Your task to perform on an android device: Go to eBay Image 0: 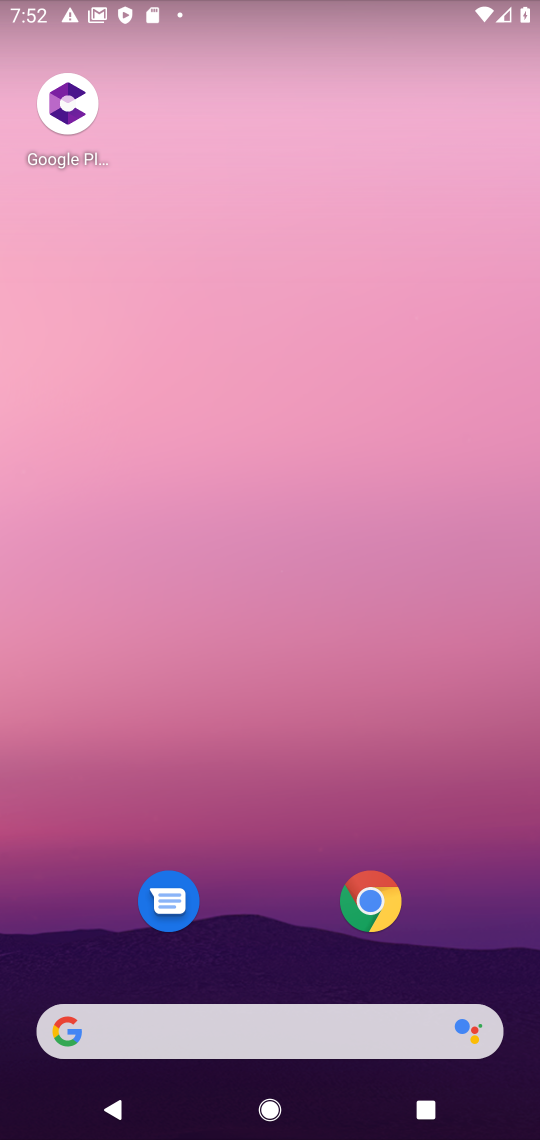
Step 0: click (366, 899)
Your task to perform on an android device: Go to eBay Image 1: 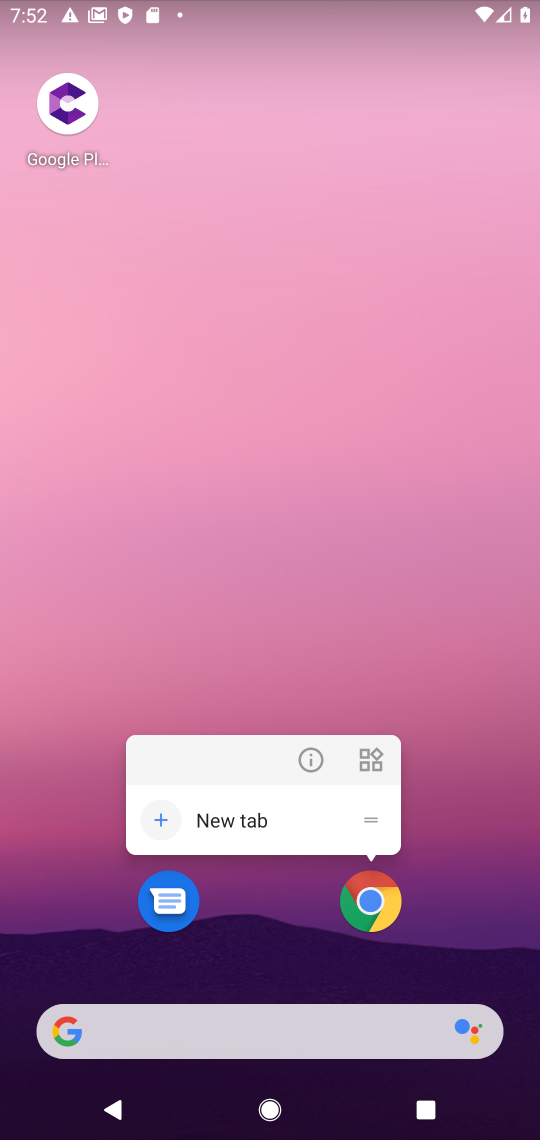
Step 1: click (377, 904)
Your task to perform on an android device: Go to eBay Image 2: 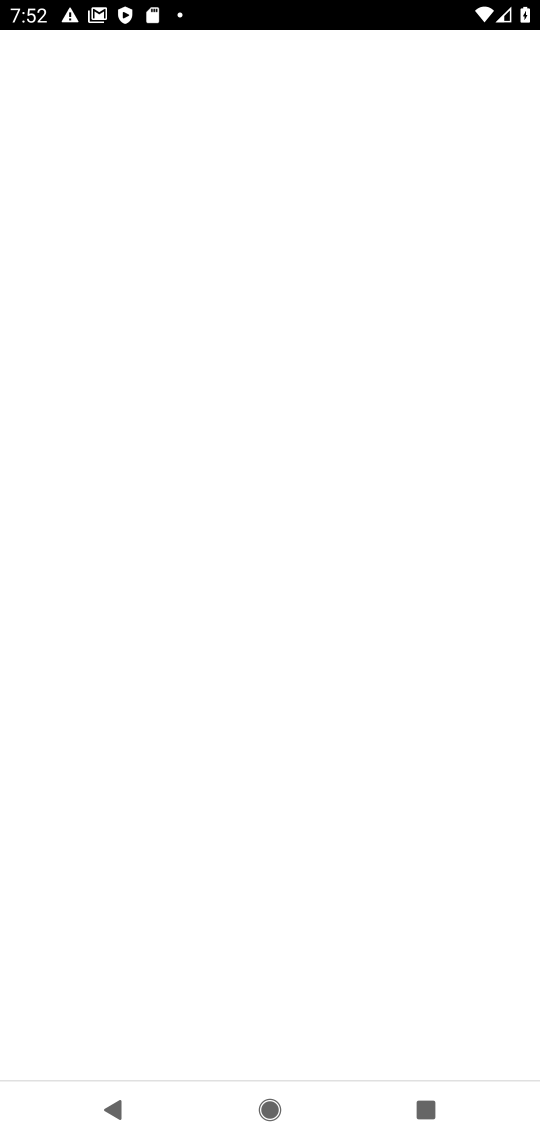
Step 2: click (377, 904)
Your task to perform on an android device: Go to eBay Image 3: 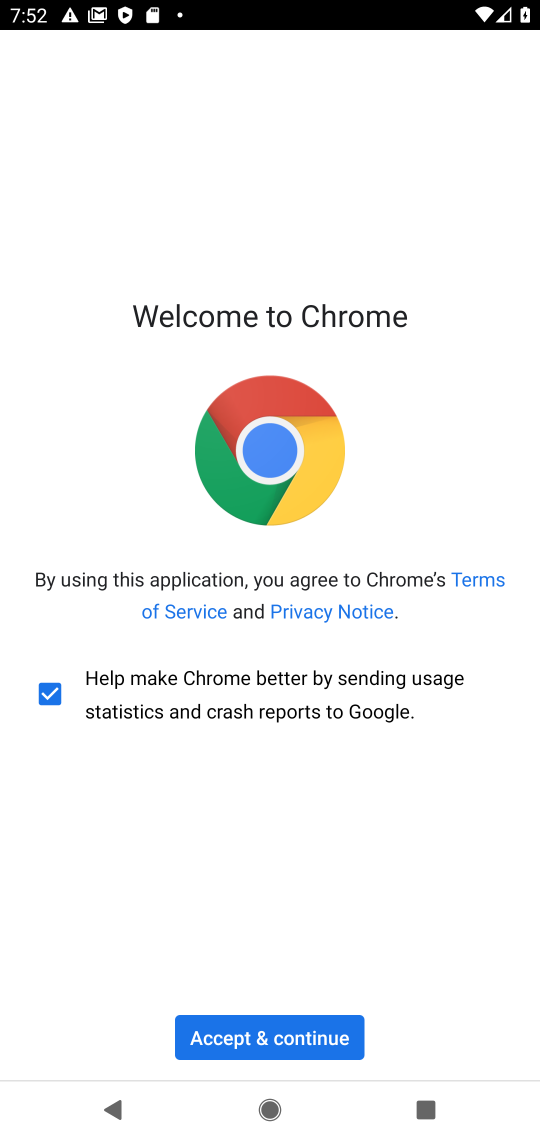
Step 3: click (318, 1032)
Your task to perform on an android device: Go to eBay Image 4: 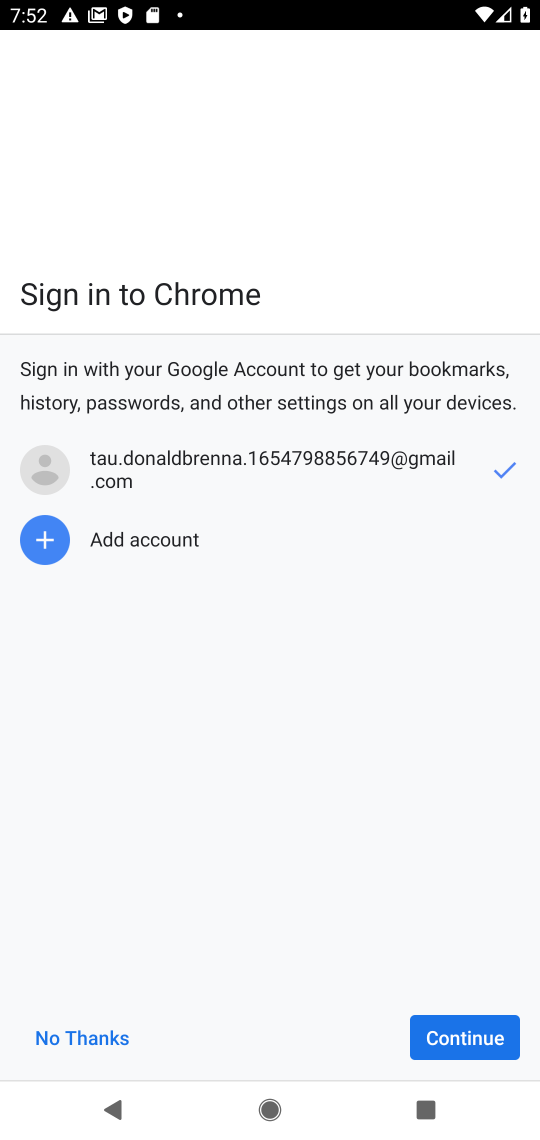
Step 4: click (459, 1025)
Your task to perform on an android device: Go to eBay Image 5: 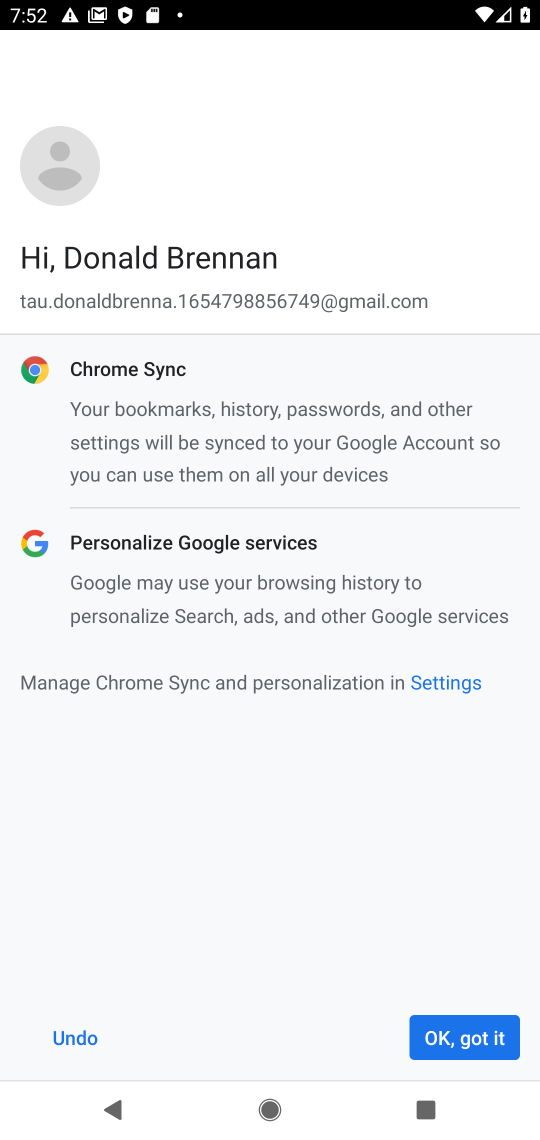
Step 5: click (457, 1029)
Your task to perform on an android device: Go to eBay Image 6: 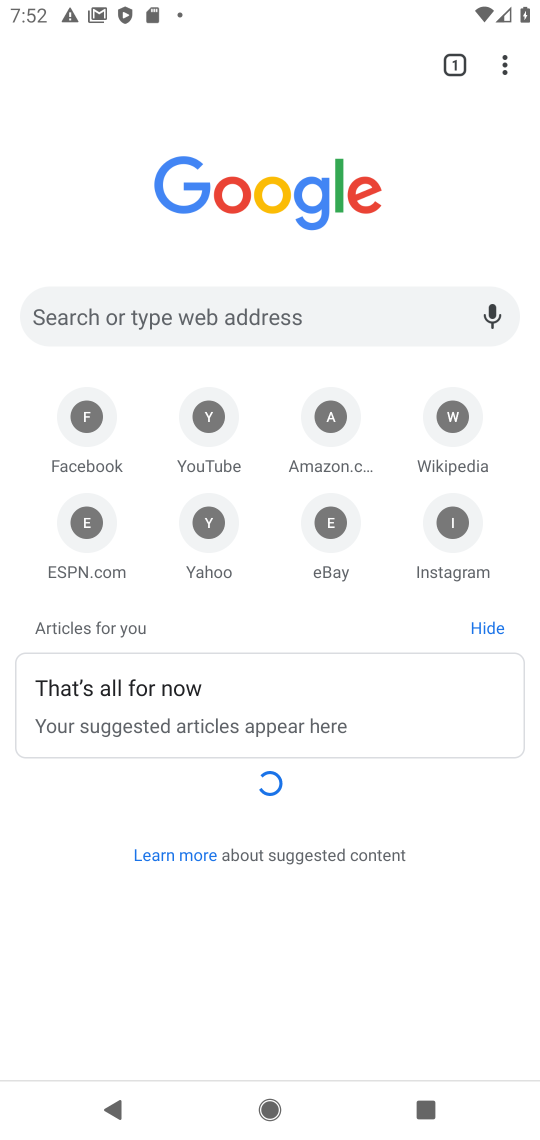
Step 6: click (340, 544)
Your task to perform on an android device: Go to eBay Image 7: 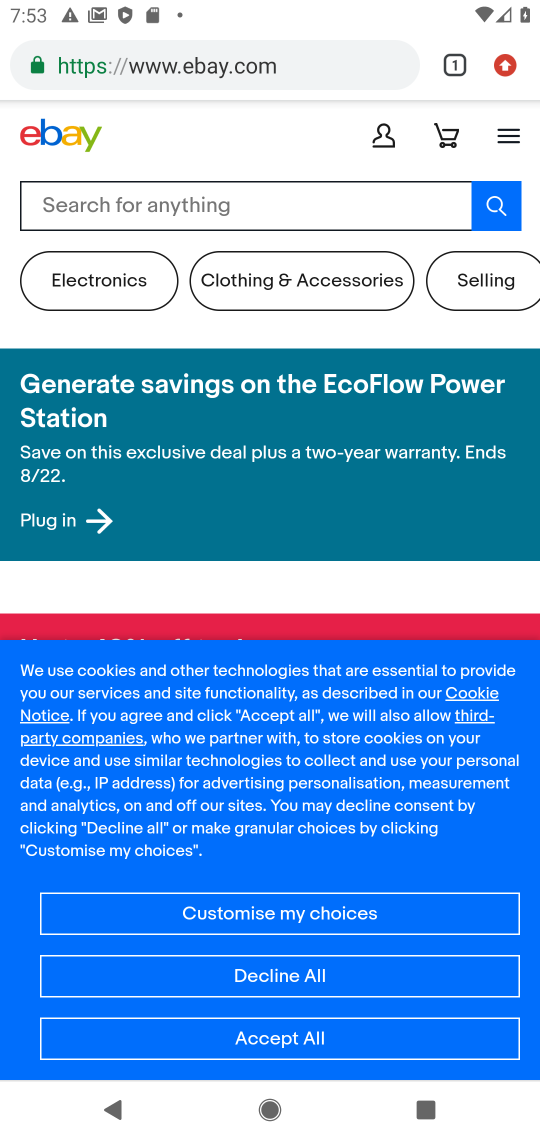
Step 7: task complete